Your task to perform on an android device: Go to wifi settings Image 0: 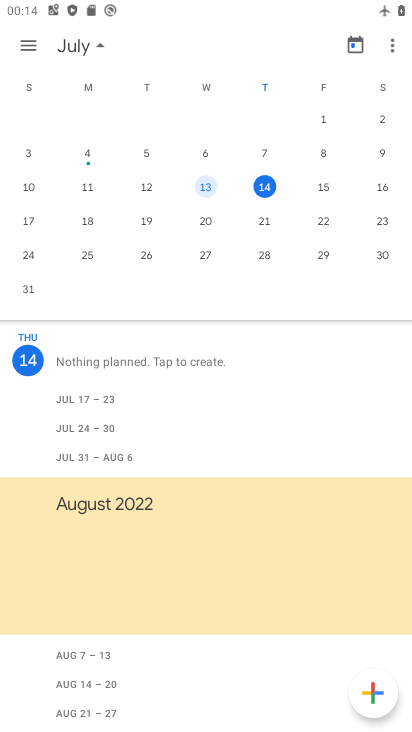
Step 0: press home button
Your task to perform on an android device: Go to wifi settings Image 1: 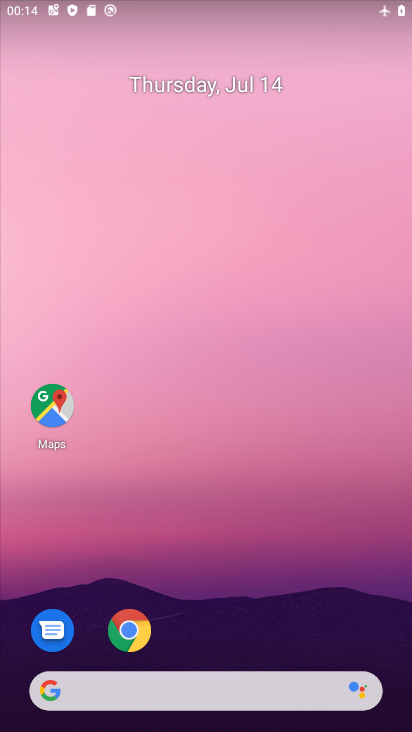
Step 1: drag from (306, 599) to (362, 125)
Your task to perform on an android device: Go to wifi settings Image 2: 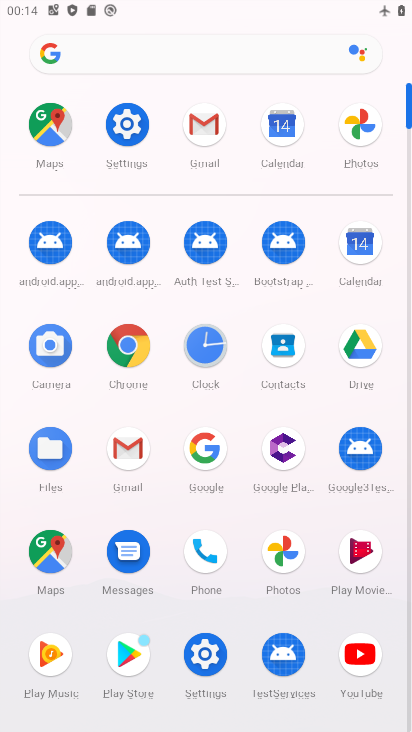
Step 2: click (131, 133)
Your task to perform on an android device: Go to wifi settings Image 3: 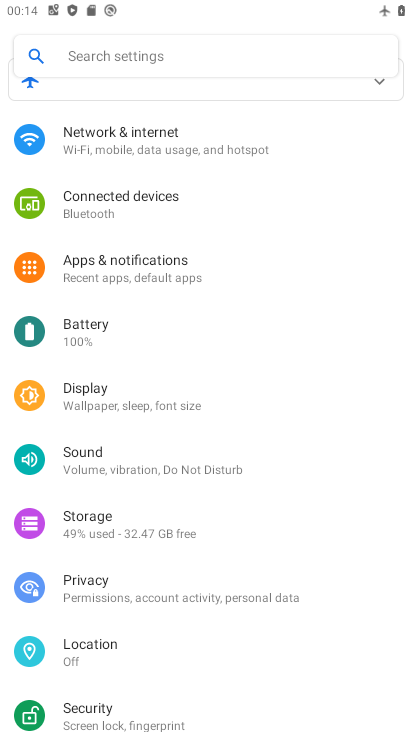
Step 3: drag from (315, 480) to (325, 364)
Your task to perform on an android device: Go to wifi settings Image 4: 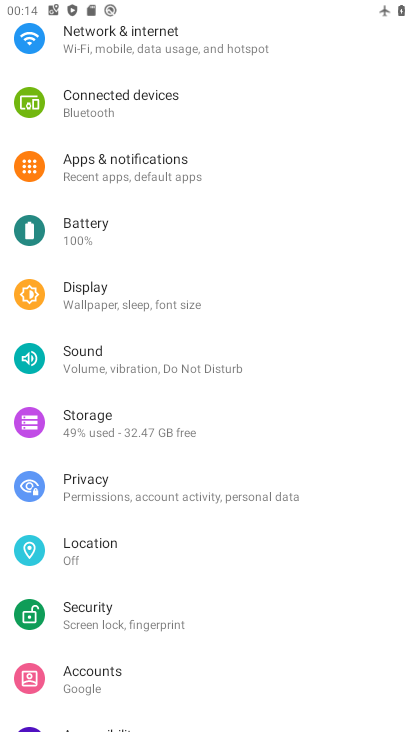
Step 4: drag from (305, 533) to (322, 438)
Your task to perform on an android device: Go to wifi settings Image 5: 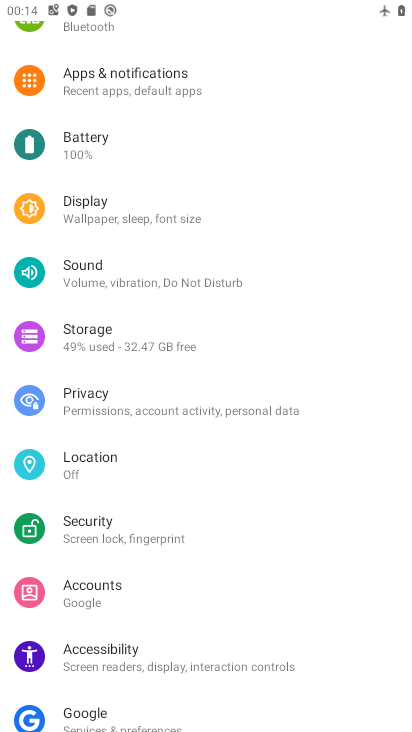
Step 5: drag from (323, 554) to (341, 464)
Your task to perform on an android device: Go to wifi settings Image 6: 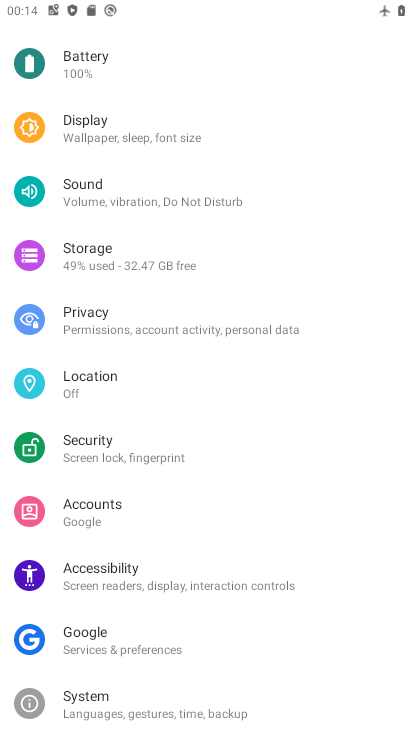
Step 6: drag from (319, 606) to (333, 497)
Your task to perform on an android device: Go to wifi settings Image 7: 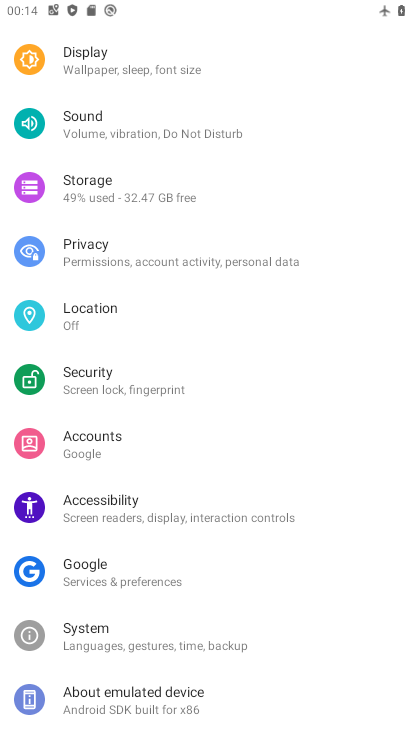
Step 7: drag from (310, 620) to (327, 514)
Your task to perform on an android device: Go to wifi settings Image 8: 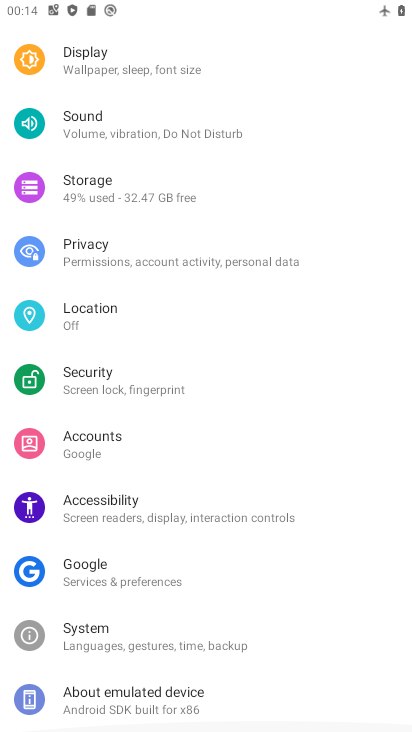
Step 8: drag from (329, 420) to (334, 502)
Your task to perform on an android device: Go to wifi settings Image 9: 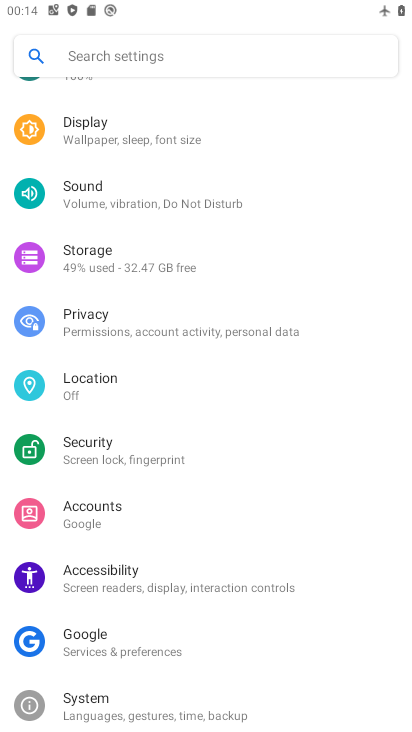
Step 9: drag from (334, 379) to (324, 470)
Your task to perform on an android device: Go to wifi settings Image 10: 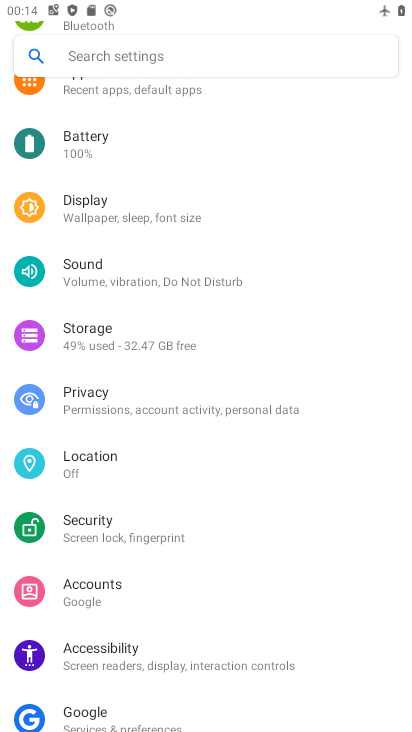
Step 10: drag from (345, 366) to (346, 451)
Your task to perform on an android device: Go to wifi settings Image 11: 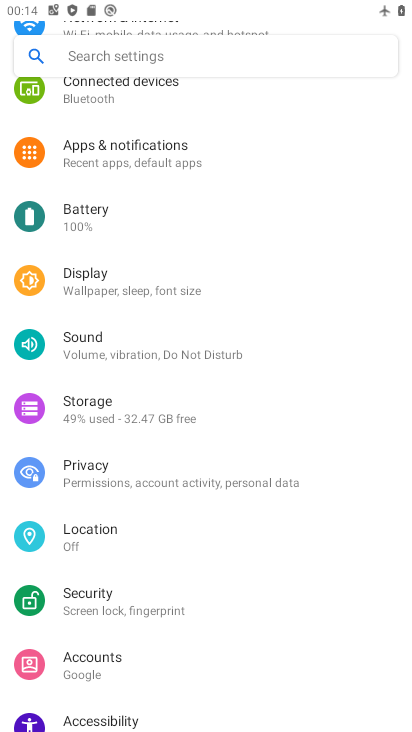
Step 11: drag from (347, 353) to (337, 439)
Your task to perform on an android device: Go to wifi settings Image 12: 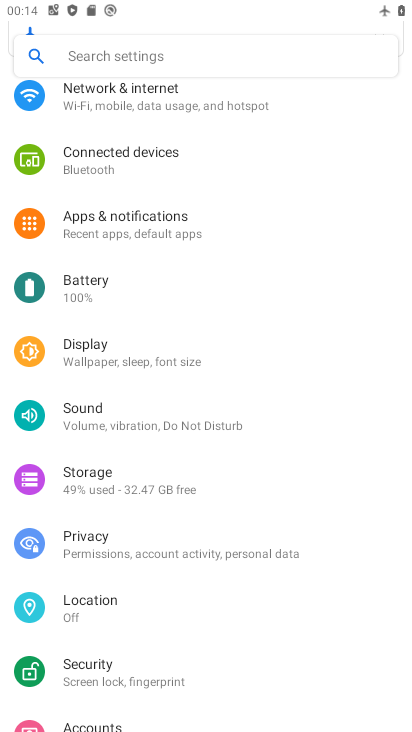
Step 12: drag from (348, 357) to (349, 423)
Your task to perform on an android device: Go to wifi settings Image 13: 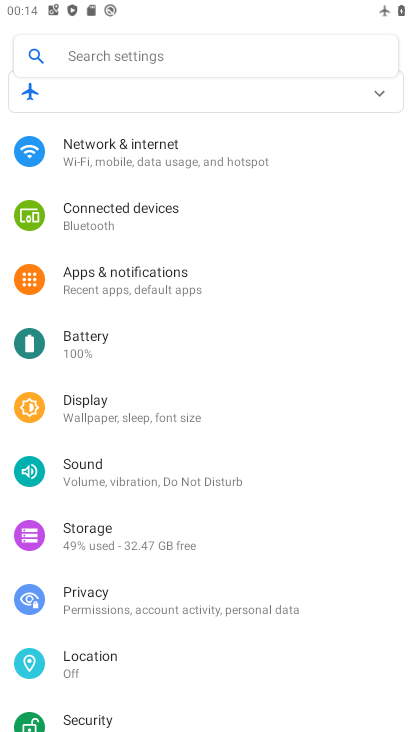
Step 13: drag from (350, 320) to (343, 399)
Your task to perform on an android device: Go to wifi settings Image 14: 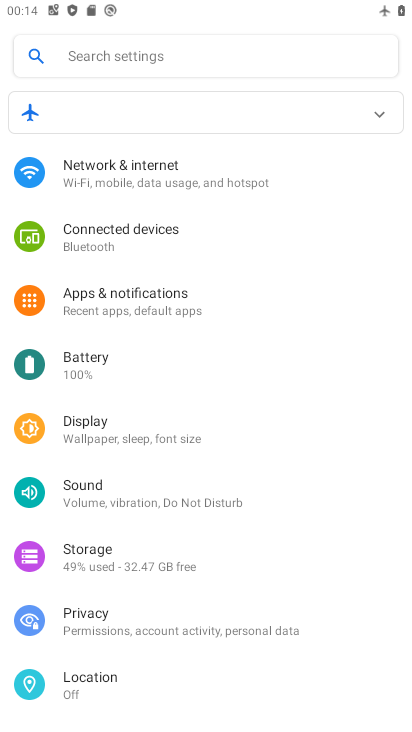
Step 14: click (305, 200)
Your task to perform on an android device: Go to wifi settings Image 15: 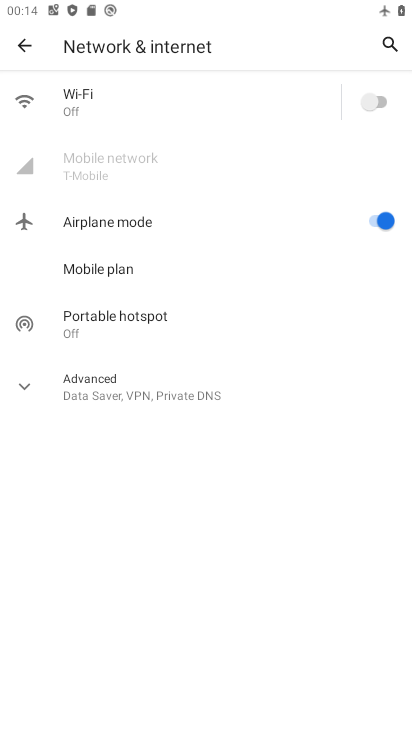
Step 15: click (146, 101)
Your task to perform on an android device: Go to wifi settings Image 16: 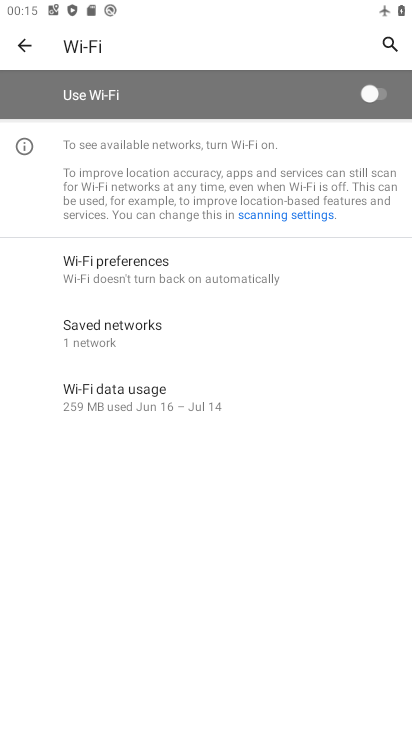
Step 16: task complete